Your task to perform on an android device: Search for lg ultragear on ebay, select the first entry, add it to the cart, then select checkout. Image 0: 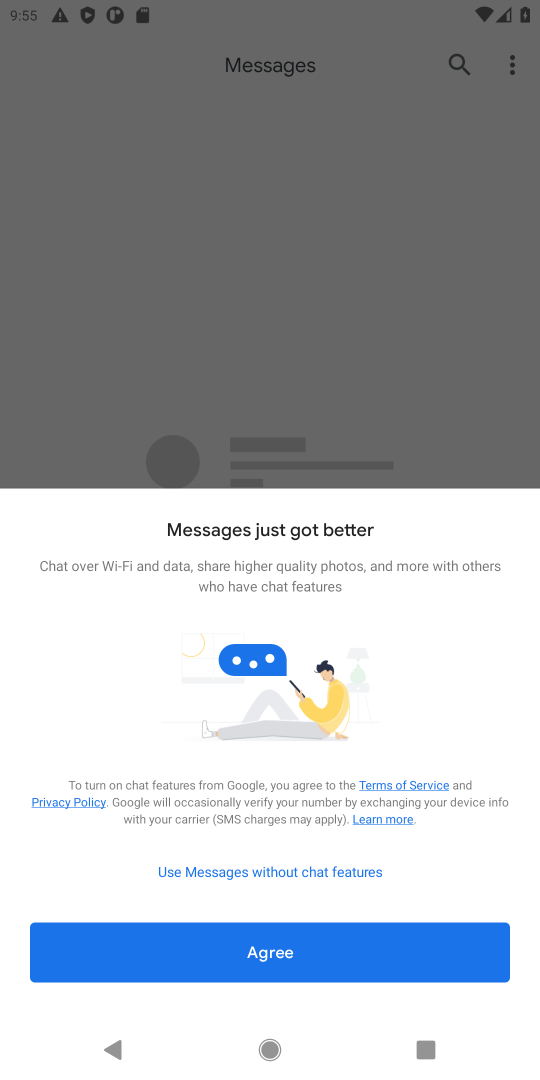
Step 0: press home button
Your task to perform on an android device: Search for lg ultragear on ebay, select the first entry, add it to the cart, then select checkout. Image 1: 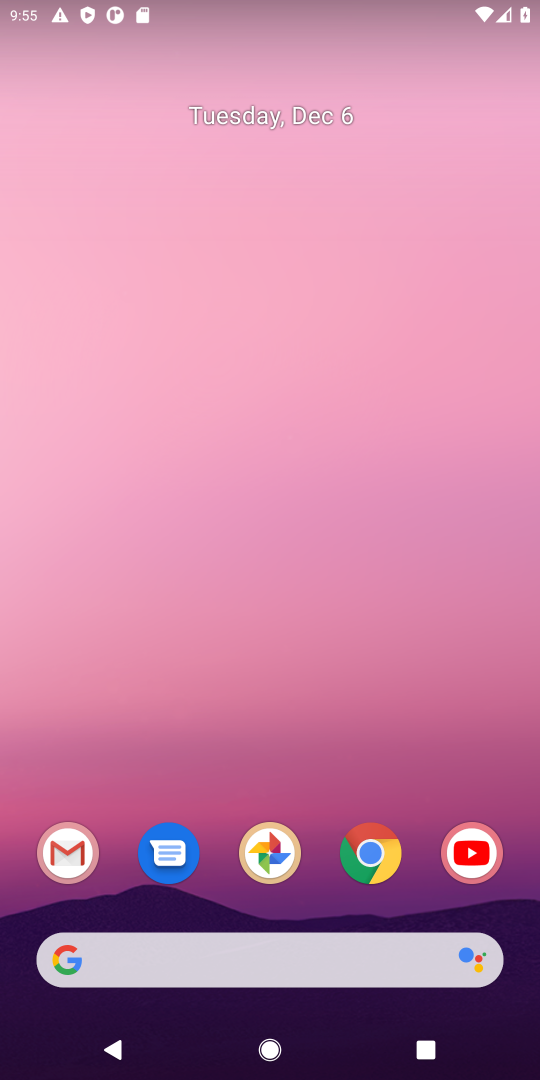
Step 1: click (373, 855)
Your task to perform on an android device: Search for lg ultragear on ebay, select the first entry, add it to the cart, then select checkout. Image 2: 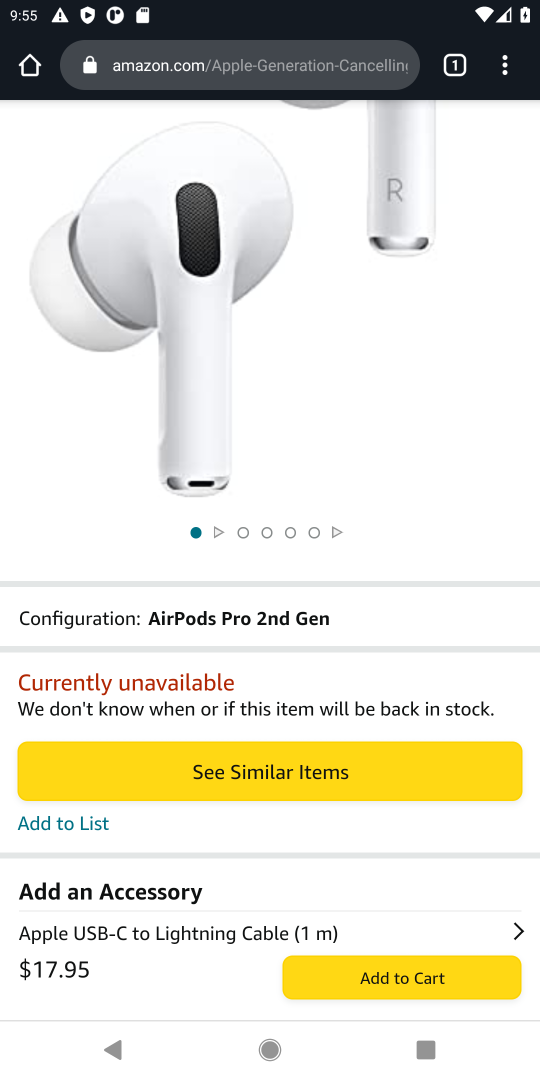
Step 2: click (236, 63)
Your task to perform on an android device: Search for lg ultragear on ebay, select the first entry, add it to the cart, then select checkout. Image 3: 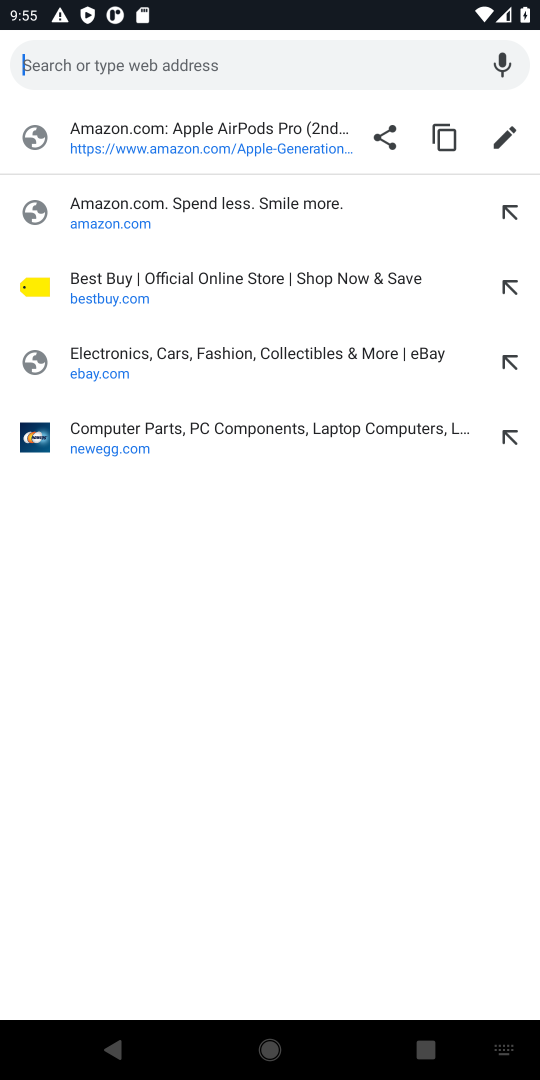
Step 3: click (214, 360)
Your task to perform on an android device: Search for lg ultragear on ebay, select the first entry, add it to the cart, then select checkout. Image 4: 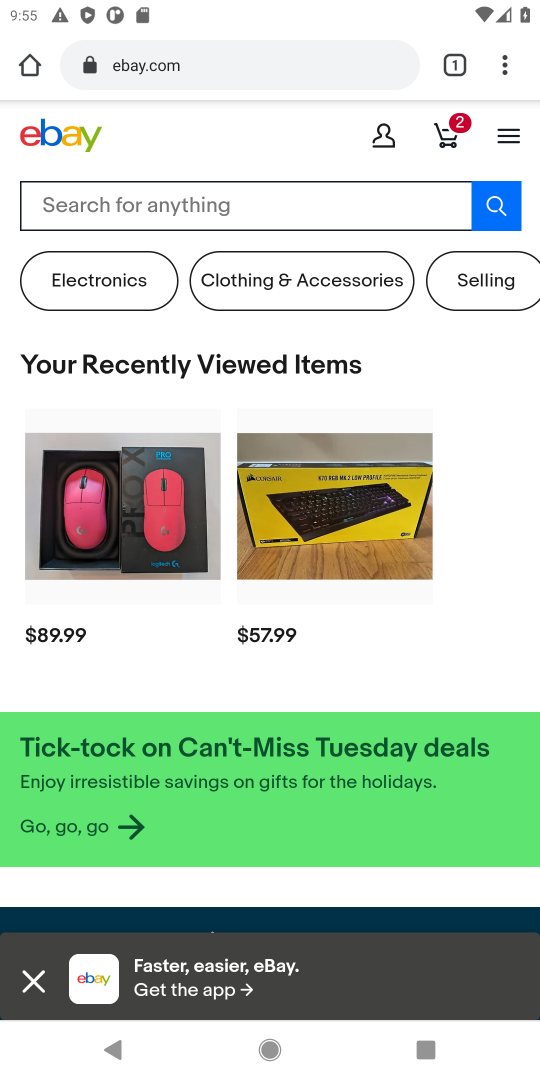
Step 4: click (233, 202)
Your task to perform on an android device: Search for lg ultragear on ebay, select the first entry, add it to the cart, then select checkout. Image 5: 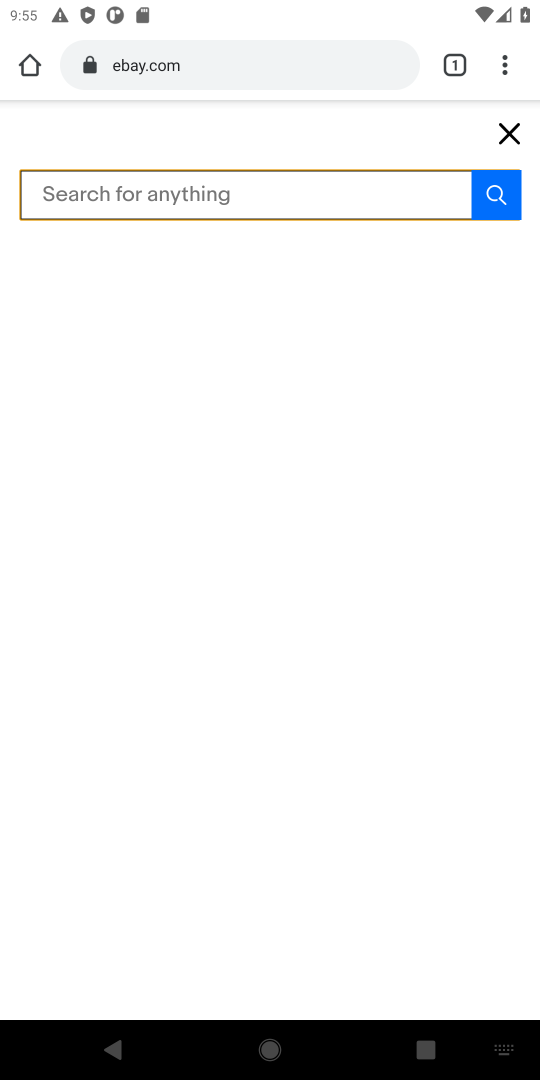
Step 5: type "lg ultragear"
Your task to perform on an android device: Search for lg ultragear on ebay, select the first entry, add it to the cart, then select checkout. Image 6: 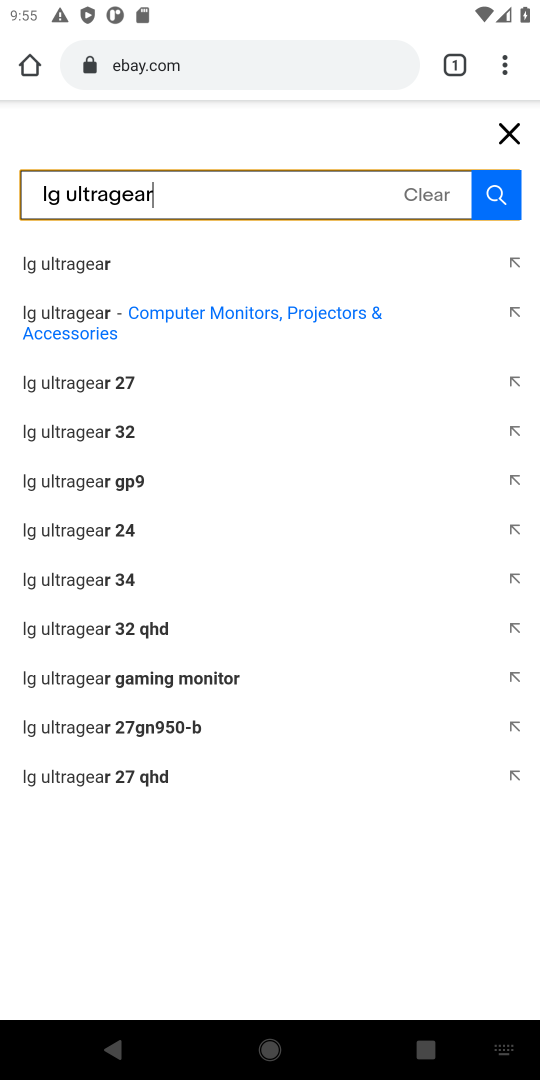
Step 6: click (79, 264)
Your task to perform on an android device: Search for lg ultragear on ebay, select the first entry, add it to the cart, then select checkout. Image 7: 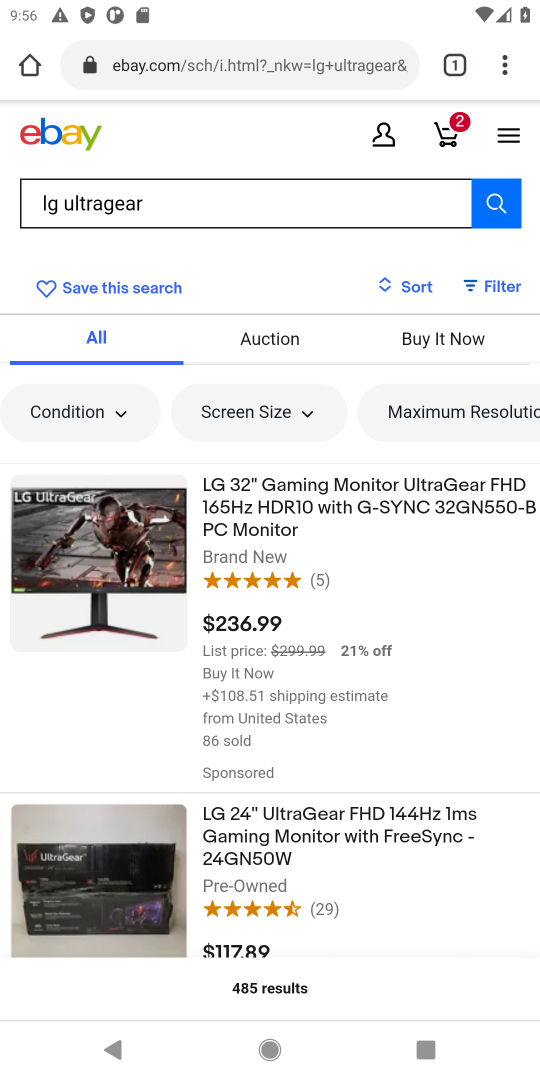
Step 7: click (412, 567)
Your task to perform on an android device: Search for lg ultragear on ebay, select the first entry, add it to the cart, then select checkout. Image 8: 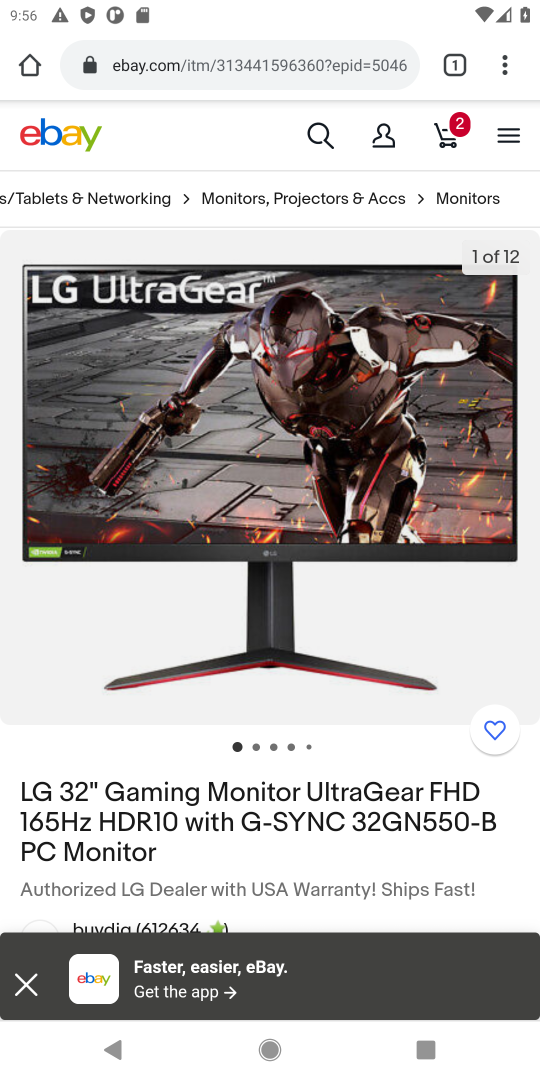
Step 8: drag from (382, 226) to (385, 175)
Your task to perform on an android device: Search for lg ultragear on ebay, select the first entry, add it to the cart, then select checkout. Image 9: 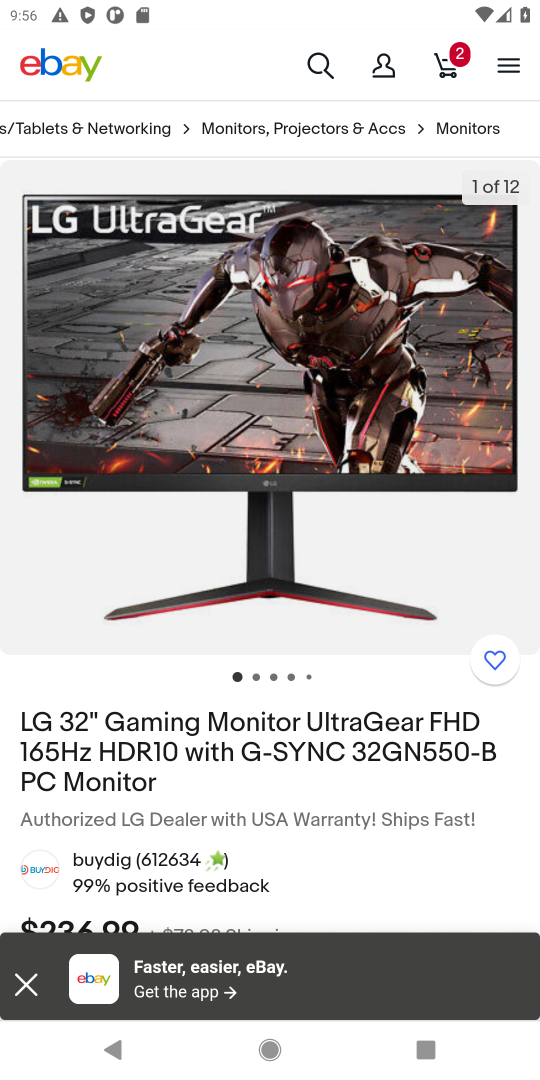
Step 9: drag from (343, 899) to (396, 278)
Your task to perform on an android device: Search for lg ultragear on ebay, select the first entry, add it to the cart, then select checkout. Image 10: 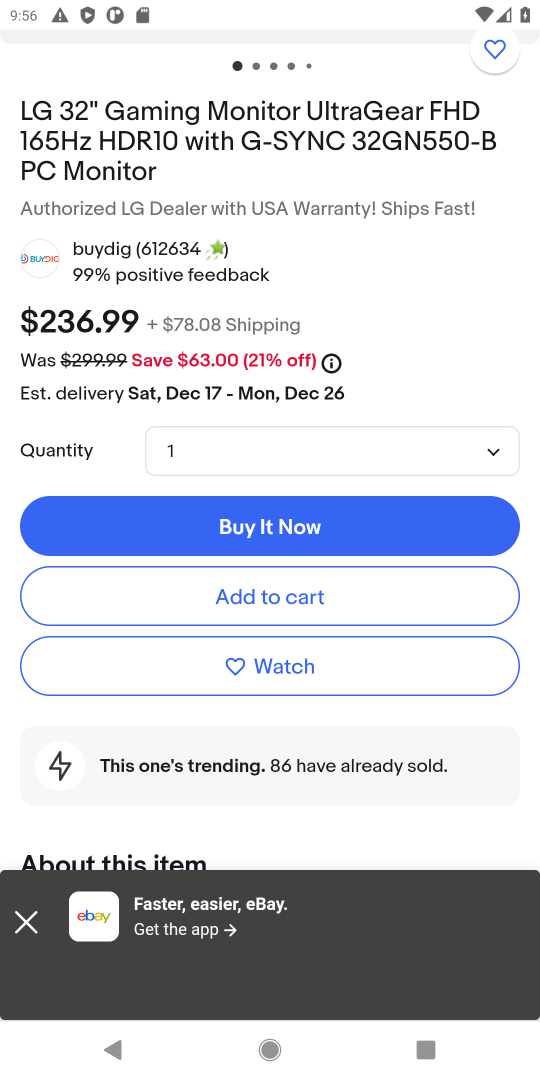
Step 10: click (319, 591)
Your task to perform on an android device: Search for lg ultragear on ebay, select the first entry, add it to the cart, then select checkout. Image 11: 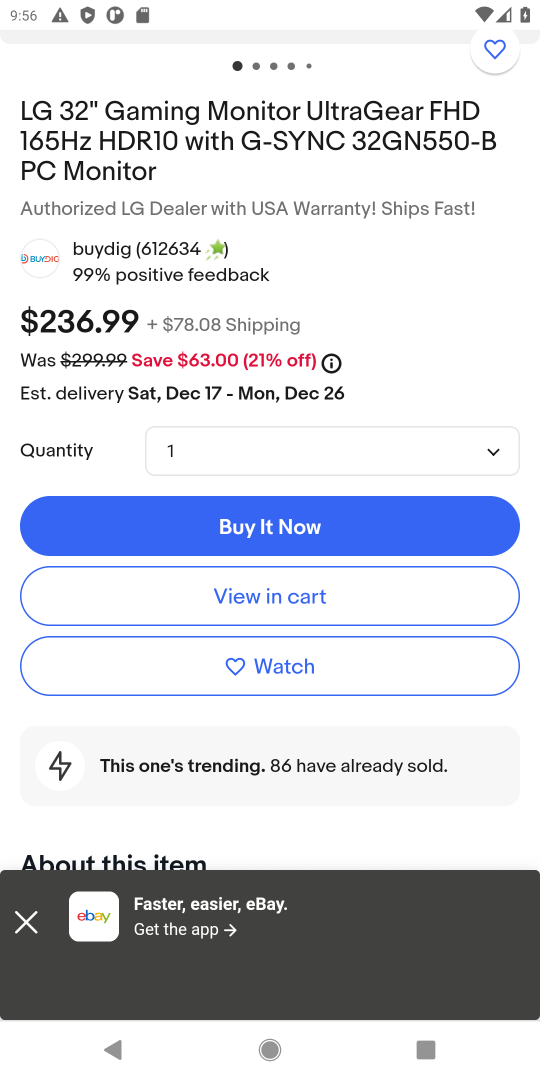
Step 11: click (292, 597)
Your task to perform on an android device: Search for lg ultragear on ebay, select the first entry, add it to the cart, then select checkout. Image 12: 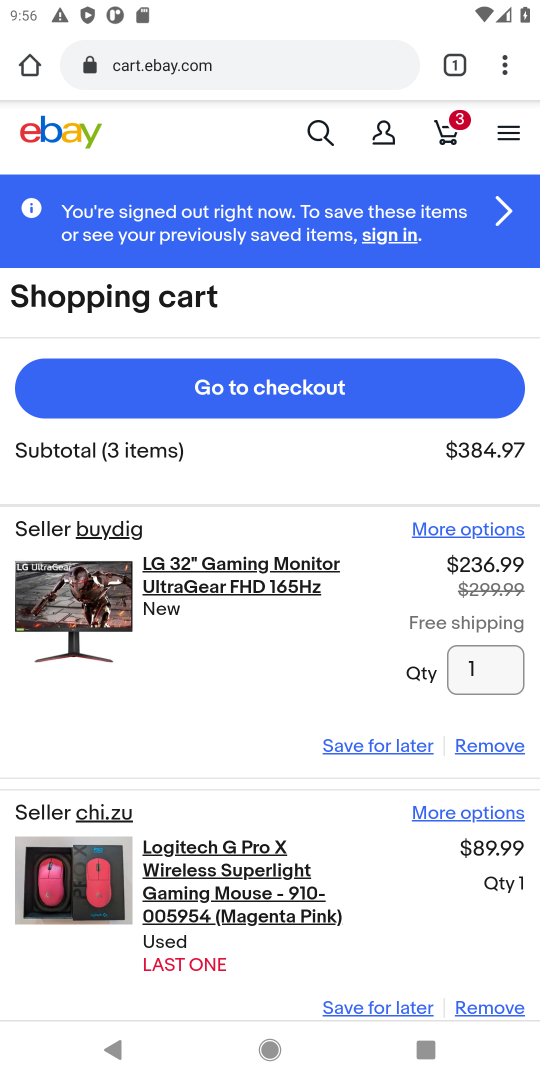
Step 12: click (328, 393)
Your task to perform on an android device: Search for lg ultragear on ebay, select the first entry, add it to the cart, then select checkout. Image 13: 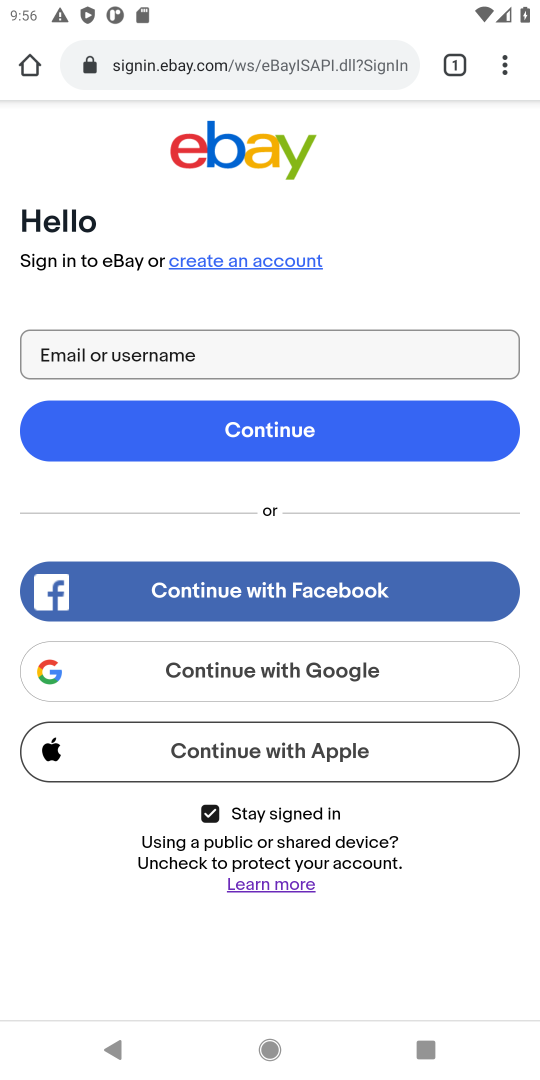
Step 13: task complete